Your task to perform on an android device: empty trash in the gmail app Image 0: 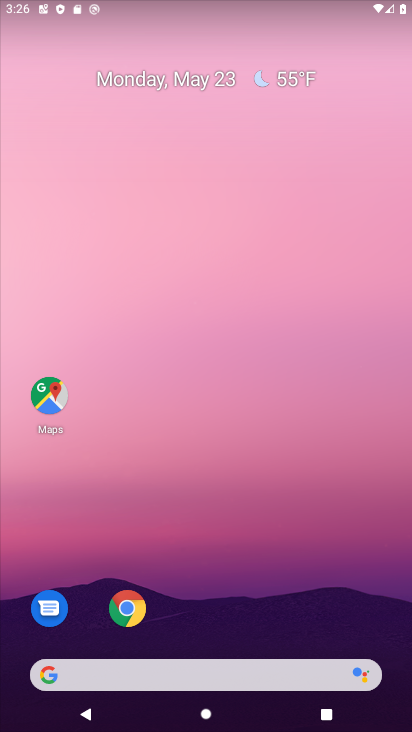
Step 0: drag from (325, 568) to (193, 39)
Your task to perform on an android device: empty trash in the gmail app Image 1: 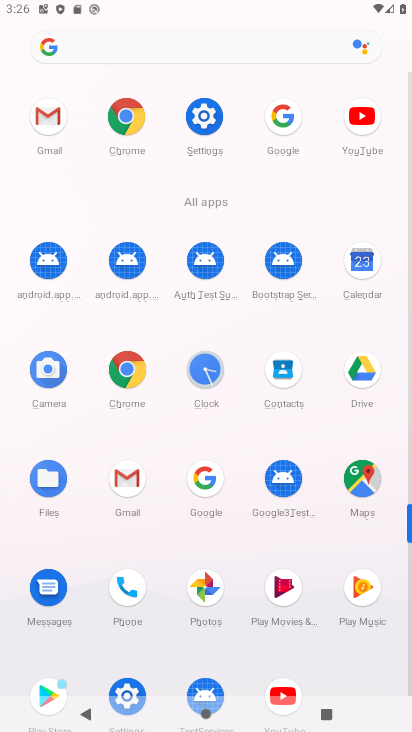
Step 1: click (128, 481)
Your task to perform on an android device: empty trash in the gmail app Image 2: 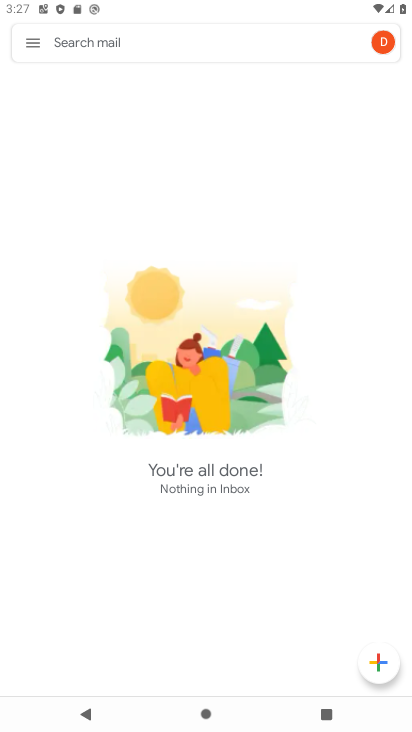
Step 2: click (28, 52)
Your task to perform on an android device: empty trash in the gmail app Image 3: 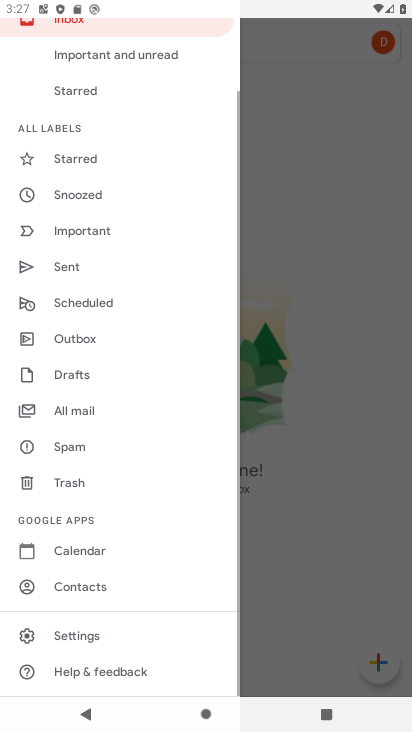
Step 3: click (88, 487)
Your task to perform on an android device: empty trash in the gmail app Image 4: 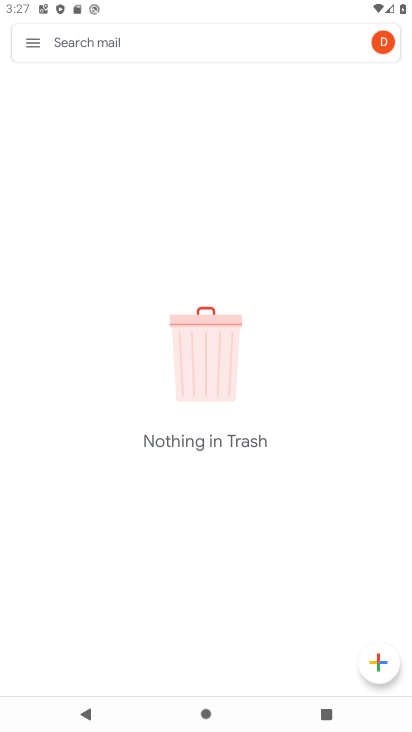
Step 4: task complete